Your task to perform on an android device: Go to Google maps Image 0: 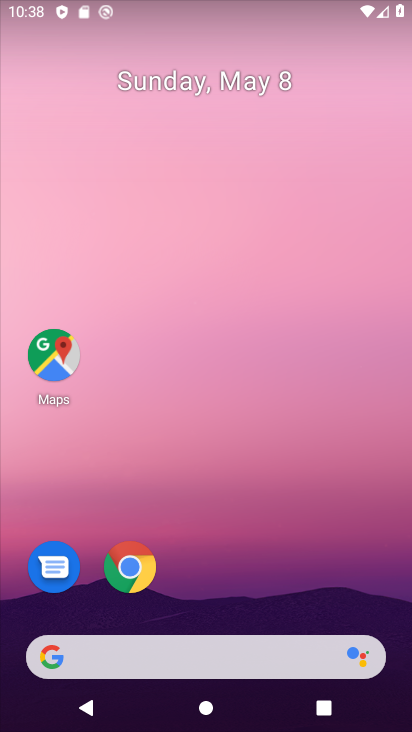
Step 0: press home button
Your task to perform on an android device: Go to Google maps Image 1: 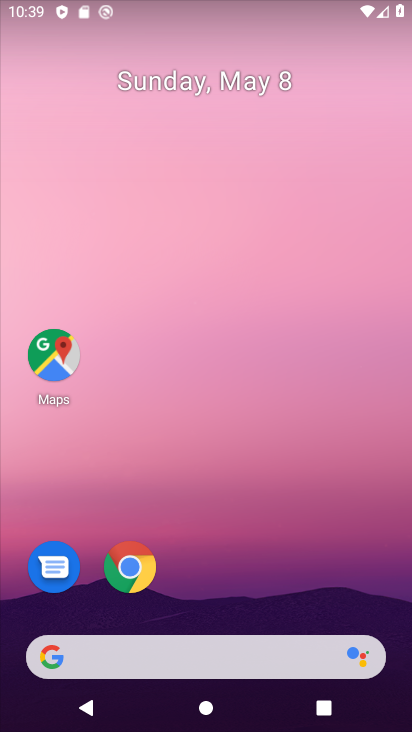
Step 1: click (51, 356)
Your task to perform on an android device: Go to Google maps Image 2: 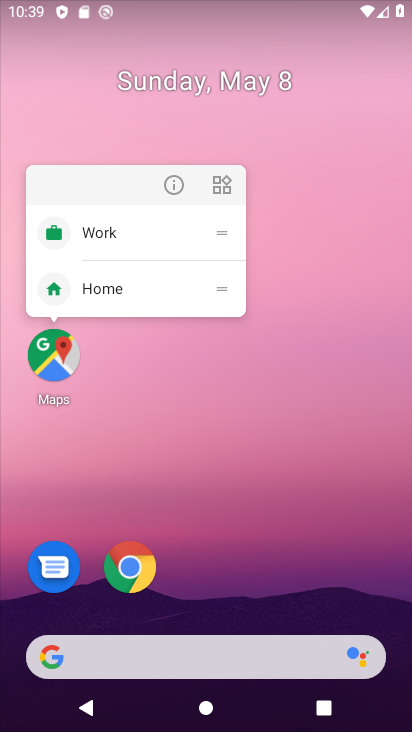
Step 2: click (50, 353)
Your task to perform on an android device: Go to Google maps Image 3: 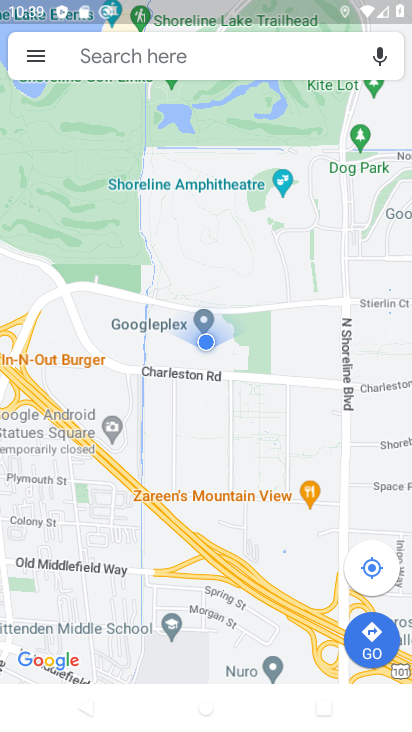
Step 3: task complete